Your task to perform on an android device: Go to notification settings Image 0: 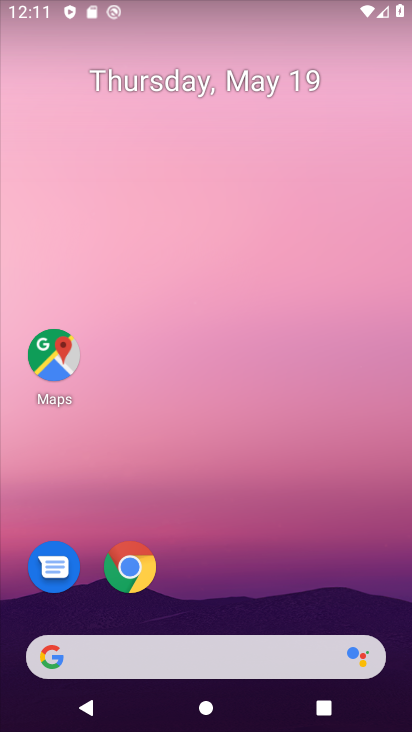
Step 0: drag from (292, 508) to (277, 55)
Your task to perform on an android device: Go to notification settings Image 1: 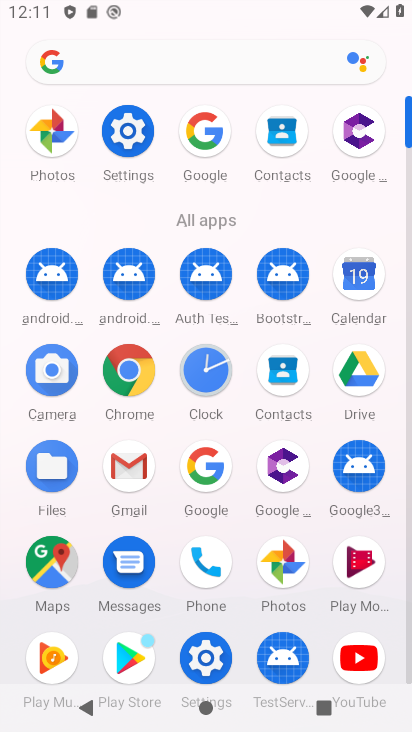
Step 1: click (136, 141)
Your task to perform on an android device: Go to notification settings Image 2: 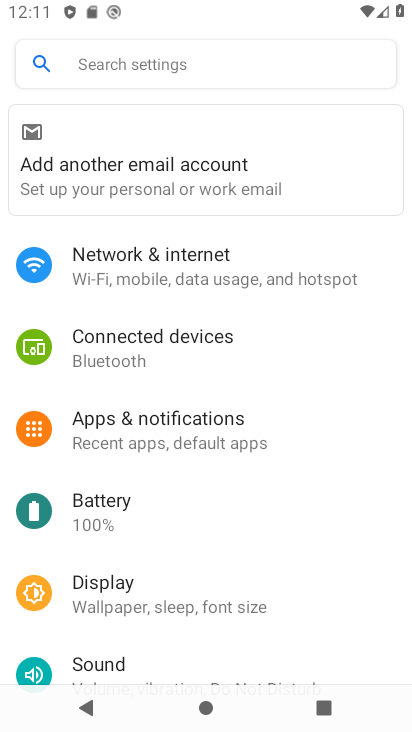
Step 2: click (205, 439)
Your task to perform on an android device: Go to notification settings Image 3: 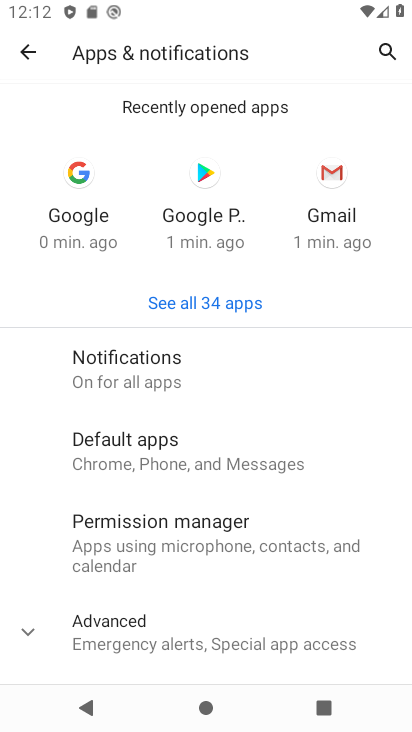
Step 3: click (203, 366)
Your task to perform on an android device: Go to notification settings Image 4: 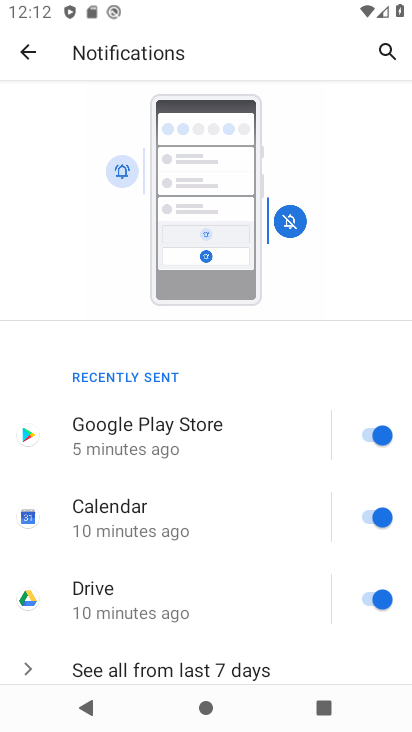
Step 4: task complete